Your task to perform on an android device: Go to Google maps Image 0: 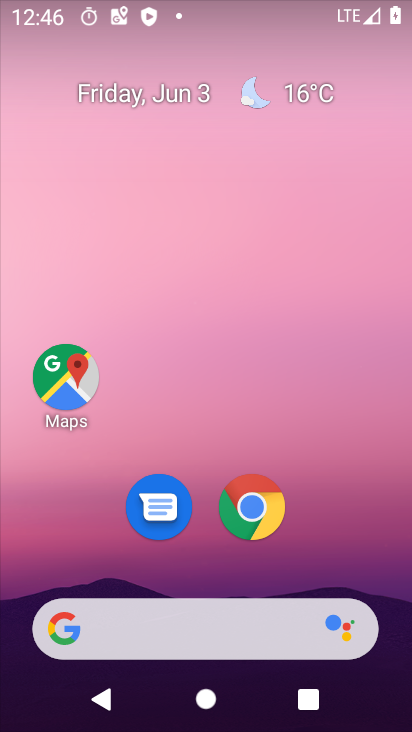
Step 0: drag from (392, 648) to (319, 28)
Your task to perform on an android device: Go to Google maps Image 1: 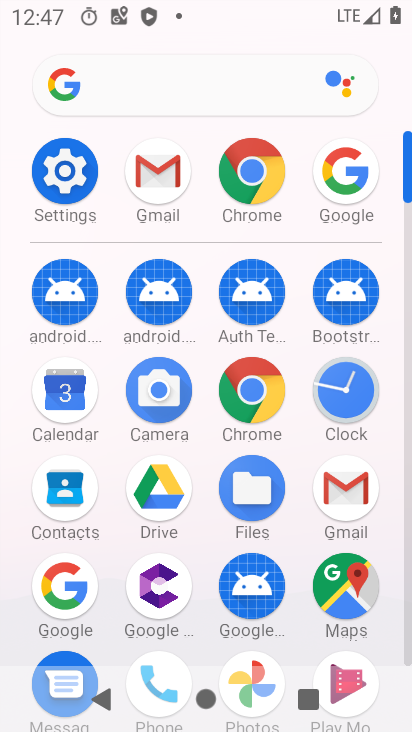
Step 1: click (333, 580)
Your task to perform on an android device: Go to Google maps Image 2: 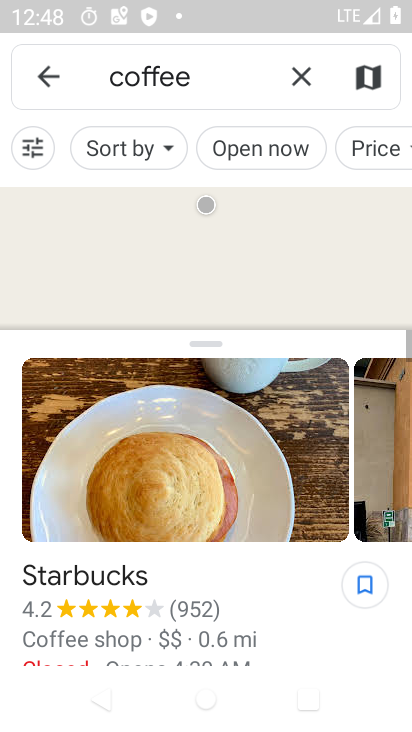
Step 2: click (294, 78)
Your task to perform on an android device: Go to Google maps Image 3: 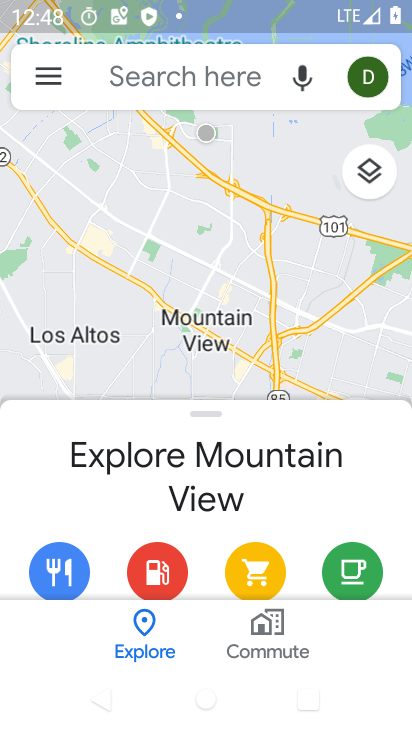
Step 3: task complete